Your task to perform on an android device: Open Yahoo.com Image 0: 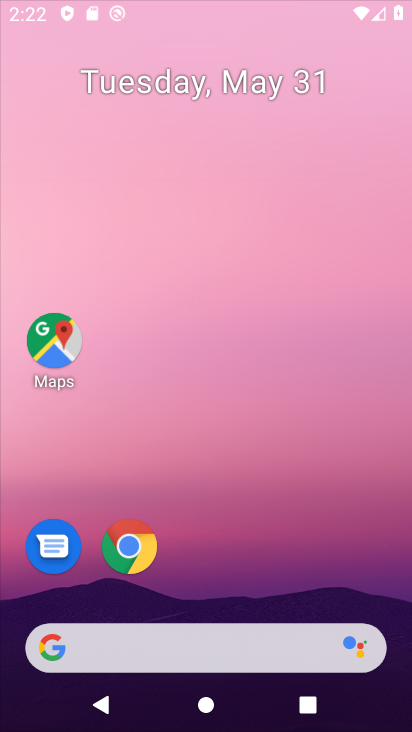
Step 0: click (305, 90)
Your task to perform on an android device: Open Yahoo.com Image 1: 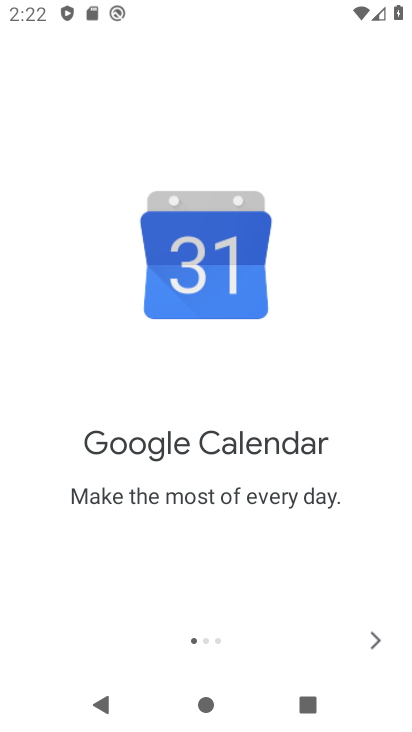
Step 1: press home button
Your task to perform on an android device: Open Yahoo.com Image 2: 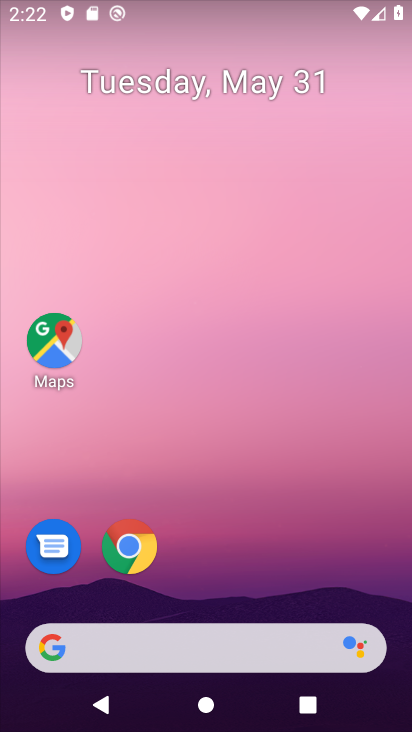
Step 2: click (272, 652)
Your task to perform on an android device: Open Yahoo.com Image 3: 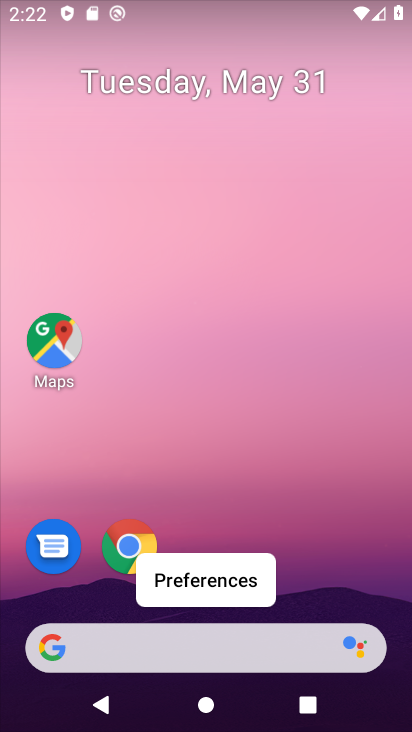
Step 3: click (209, 662)
Your task to perform on an android device: Open Yahoo.com Image 4: 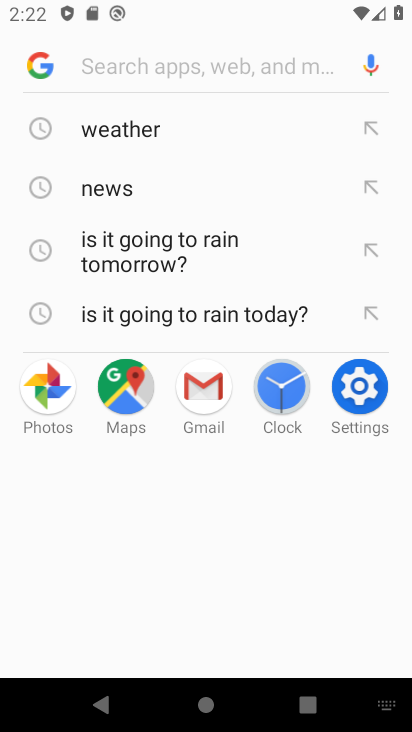
Step 4: type "yahoo.com"
Your task to perform on an android device: Open Yahoo.com Image 5: 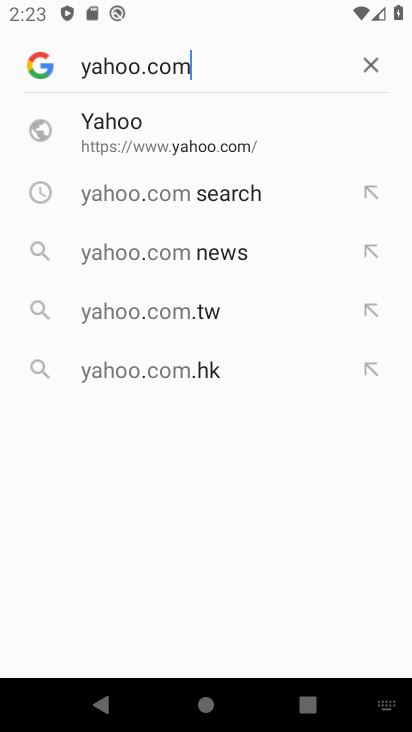
Step 5: click (140, 136)
Your task to perform on an android device: Open Yahoo.com Image 6: 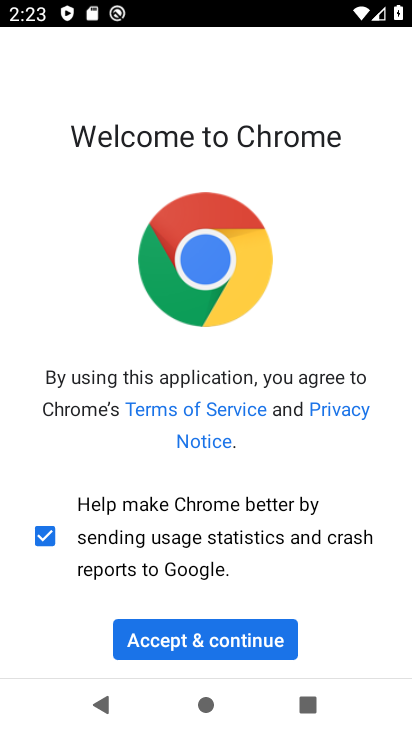
Step 6: press home button
Your task to perform on an android device: Open Yahoo.com Image 7: 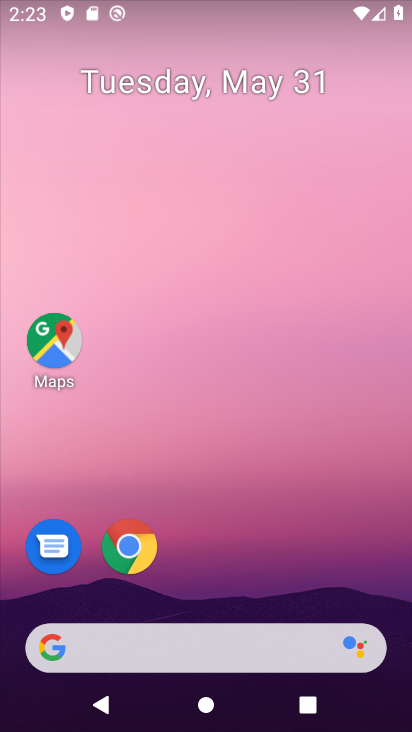
Step 7: click (240, 654)
Your task to perform on an android device: Open Yahoo.com Image 8: 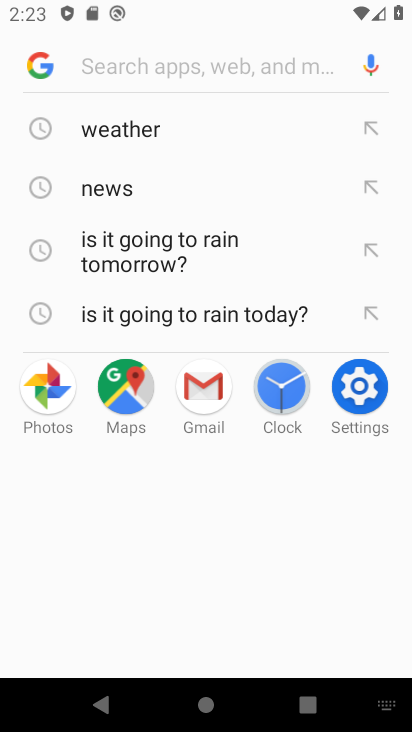
Step 8: type "yahoo.com"
Your task to perform on an android device: Open Yahoo.com Image 9: 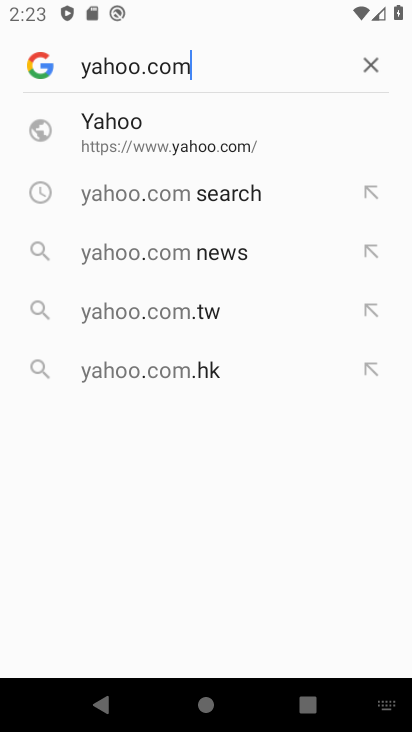
Step 9: click (128, 137)
Your task to perform on an android device: Open Yahoo.com Image 10: 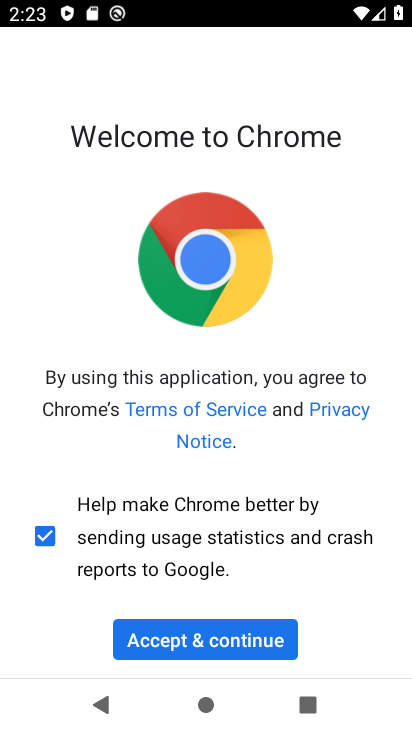
Step 10: click (219, 635)
Your task to perform on an android device: Open Yahoo.com Image 11: 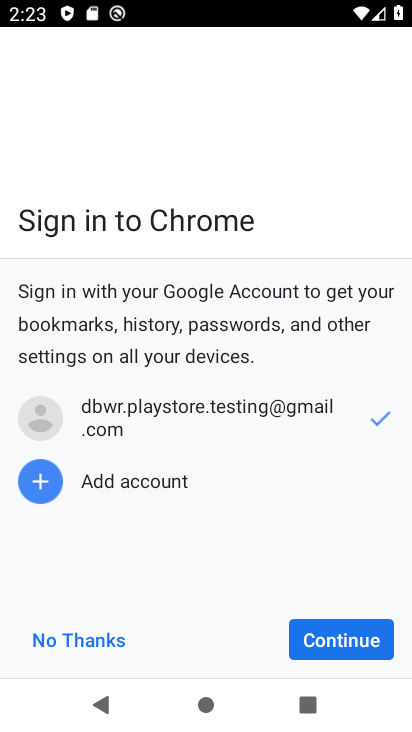
Step 11: click (316, 637)
Your task to perform on an android device: Open Yahoo.com Image 12: 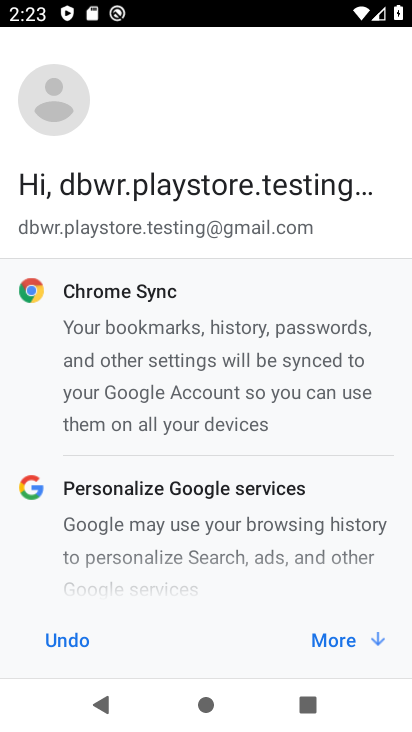
Step 12: click (316, 637)
Your task to perform on an android device: Open Yahoo.com Image 13: 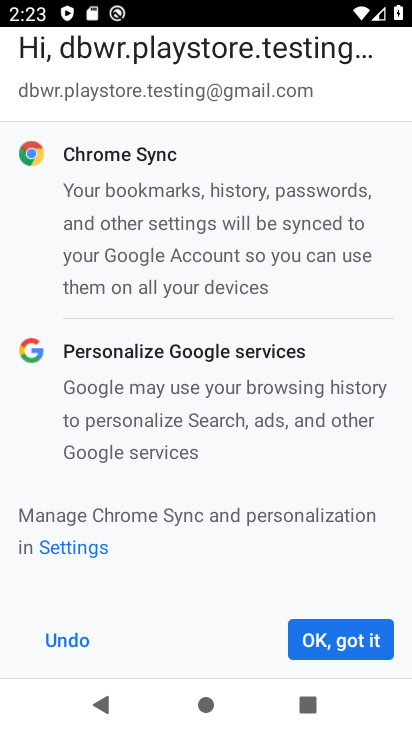
Step 13: click (316, 635)
Your task to perform on an android device: Open Yahoo.com Image 14: 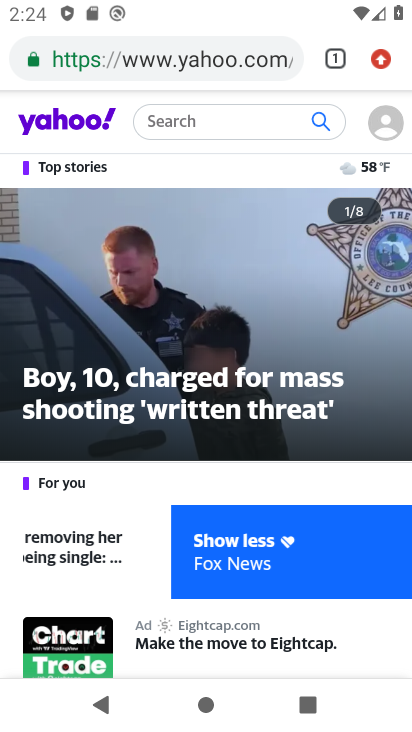
Step 14: task complete